Your task to perform on an android device: see sites visited before in the chrome app Image 0: 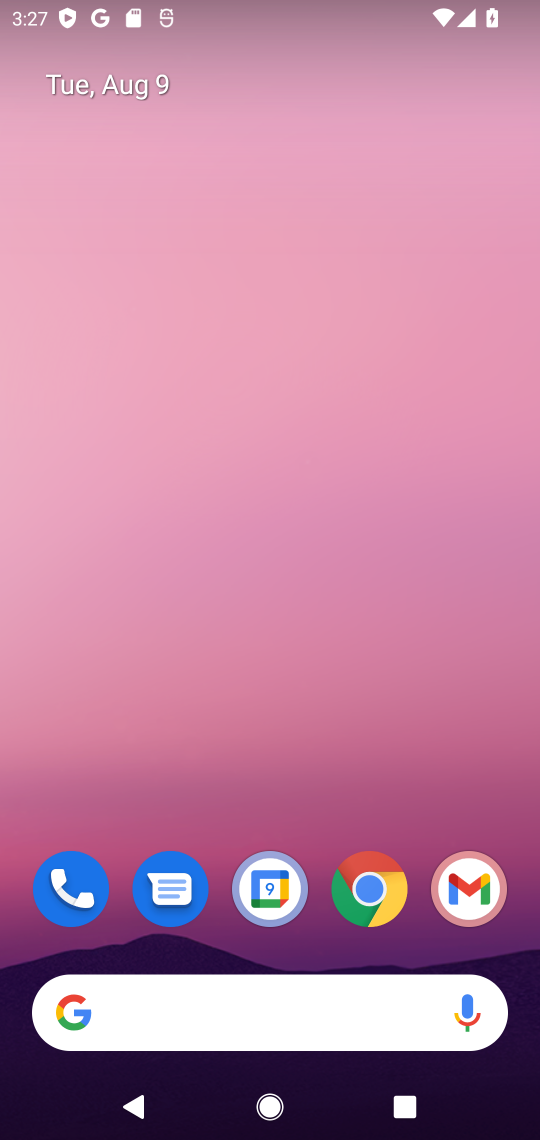
Step 0: click (373, 884)
Your task to perform on an android device: see sites visited before in the chrome app Image 1: 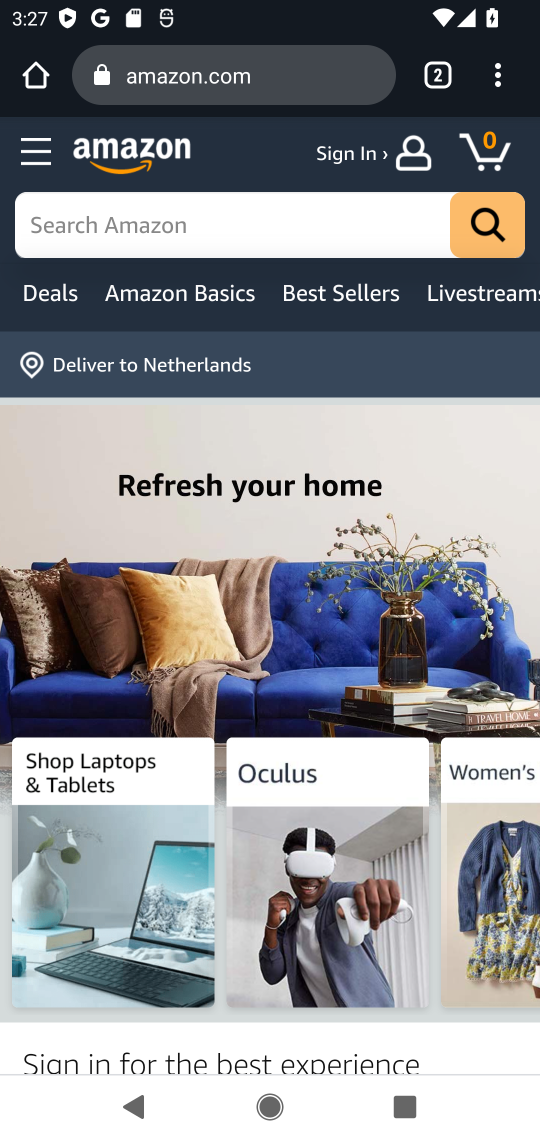
Step 1: click (500, 75)
Your task to perform on an android device: see sites visited before in the chrome app Image 2: 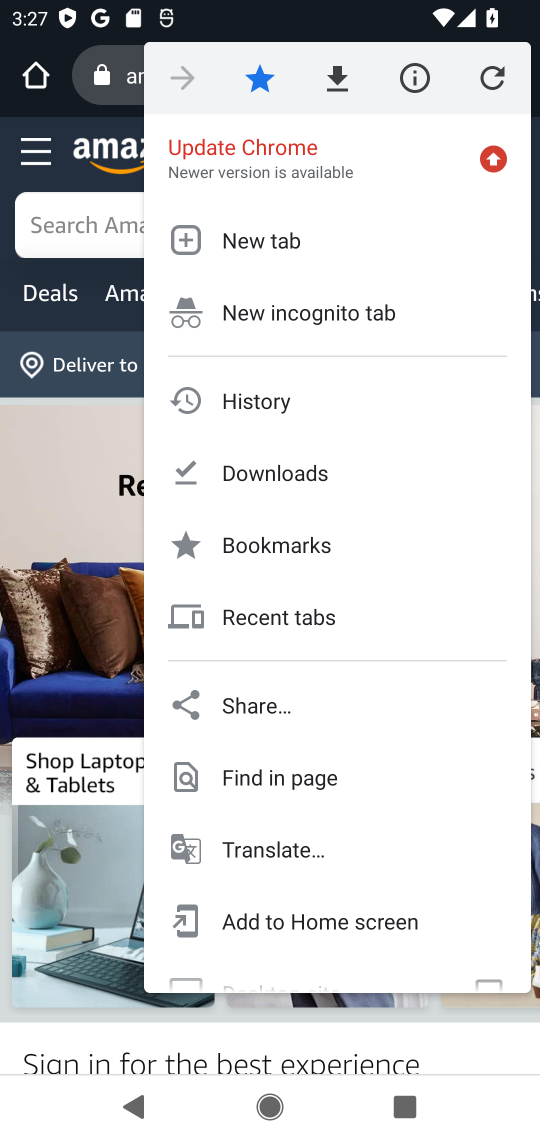
Step 2: click (287, 614)
Your task to perform on an android device: see sites visited before in the chrome app Image 3: 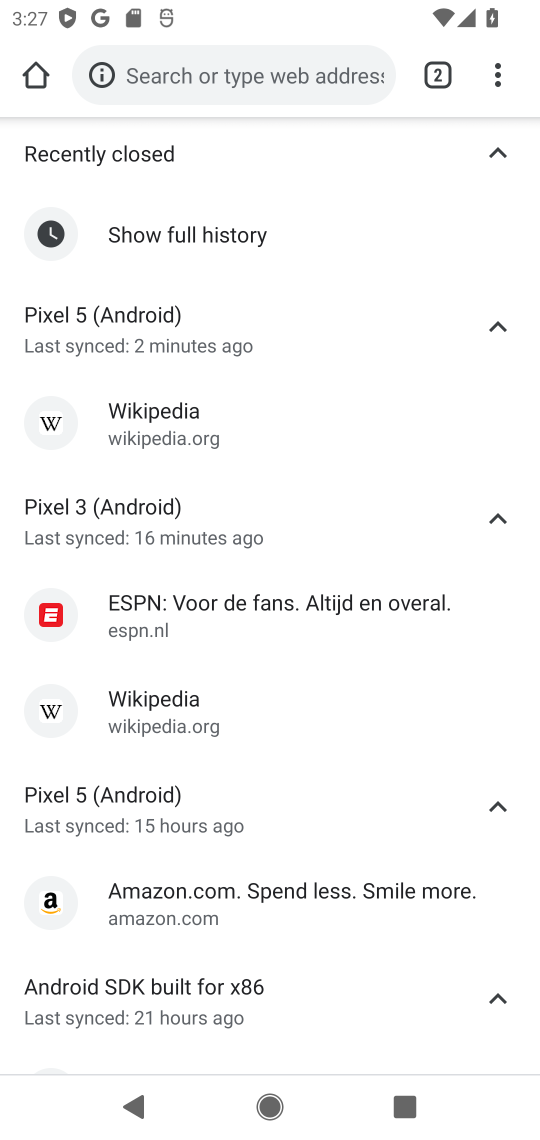
Step 3: task complete